Your task to perform on an android device: turn pop-ups on in chrome Image 0: 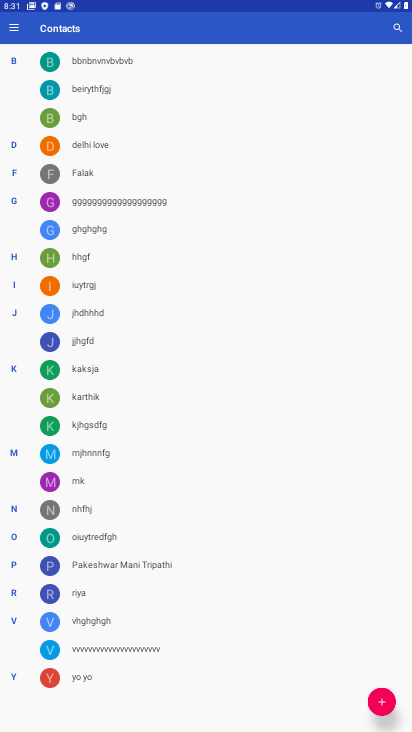
Step 0: press home button
Your task to perform on an android device: turn pop-ups on in chrome Image 1: 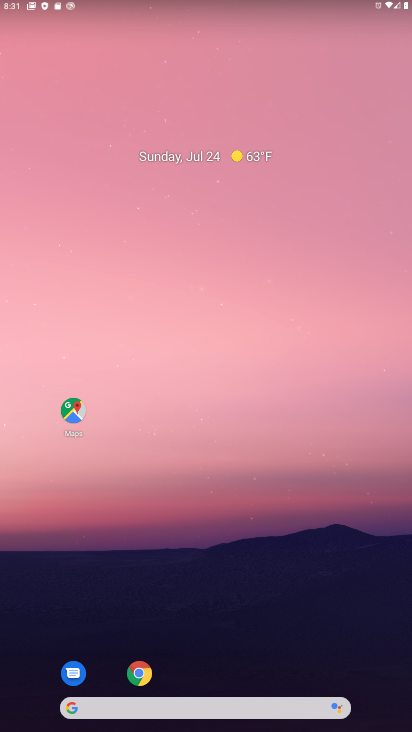
Step 1: drag from (230, 674) to (177, 101)
Your task to perform on an android device: turn pop-ups on in chrome Image 2: 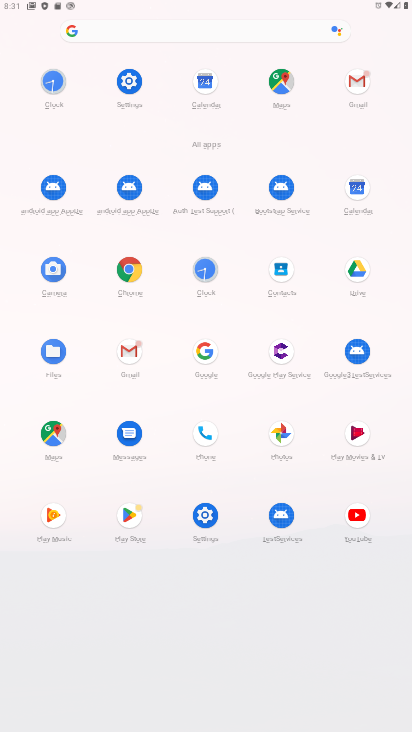
Step 2: click (203, 516)
Your task to perform on an android device: turn pop-ups on in chrome Image 3: 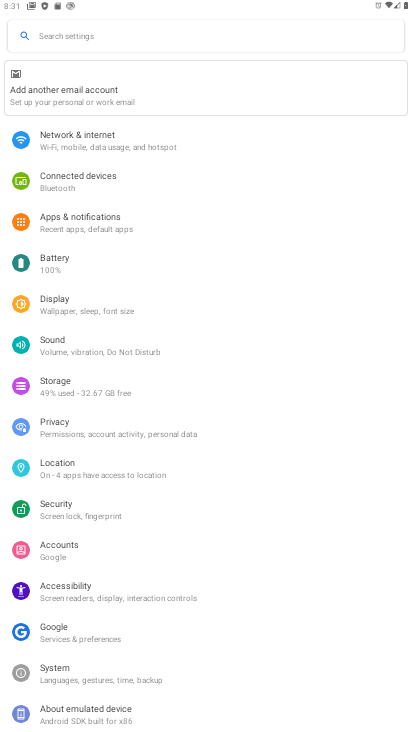
Step 3: press home button
Your task to perform on an android device: turn pop-ups on in chrome Image 4: 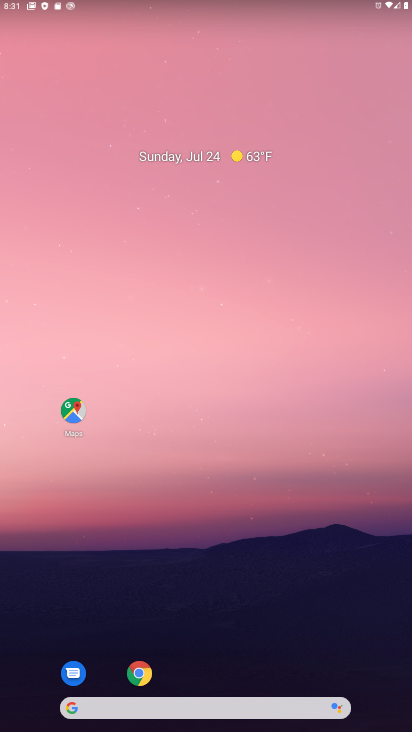
Step 4: drag from (205, 699) to (137, 29)
Your task to perform on an android device: turn pop-ups on in chrome Image 5: 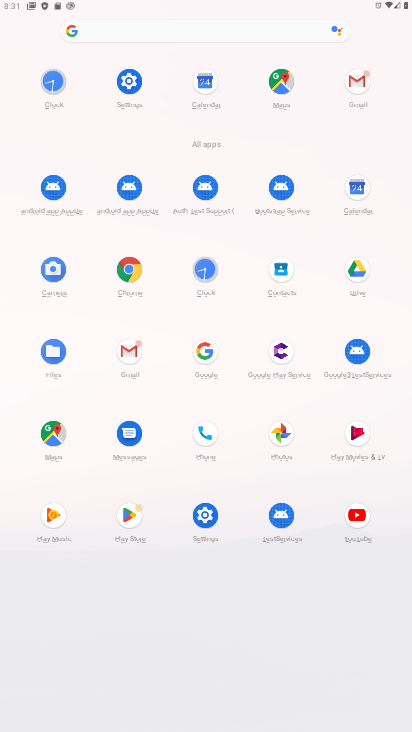
Step 5: click (120, 275)
Your task to perform on an android device: turn pop-ups on in chrome Image 6: 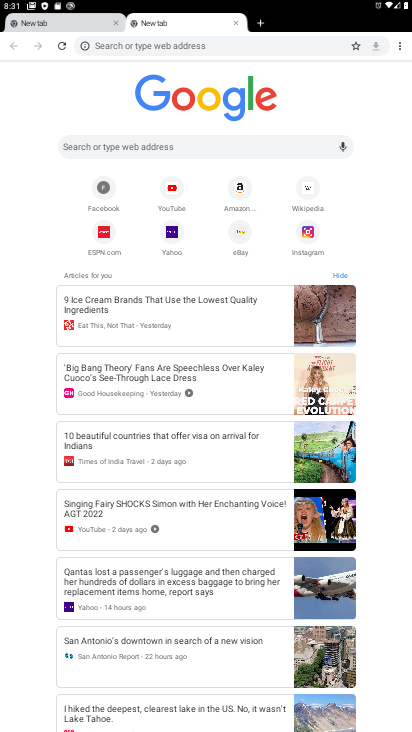
Step 6: click (399, 53)
Your task to perform on an android device: turn pop-ups on in chrome Image 7: 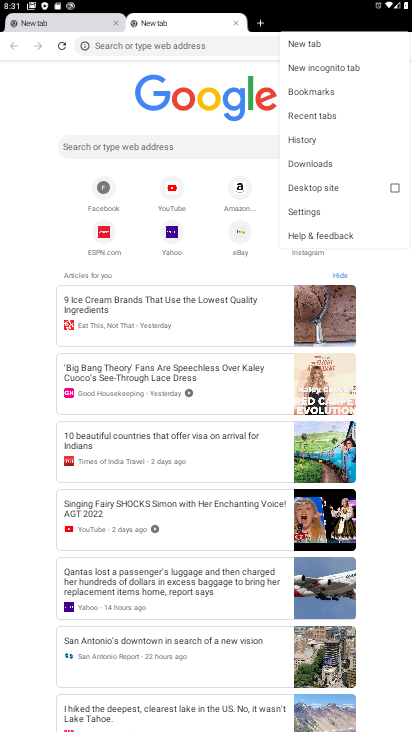
Step 7: click (302, 201)
Your task to perform on an android device: turn pop-ups on in chrome Image 8: 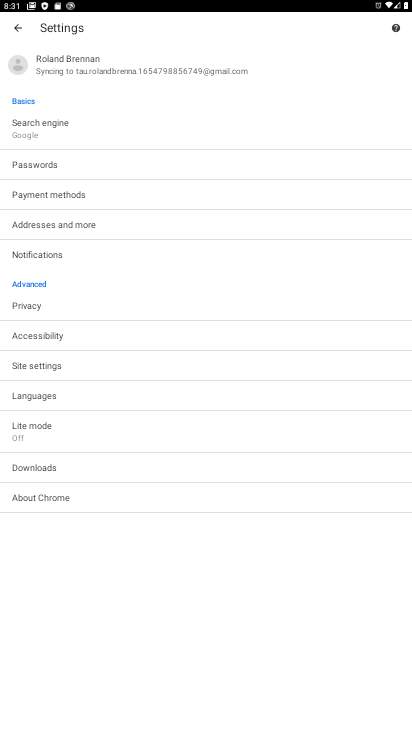
Step 8: click (44, 365)
Your task to perform on an android device: turn pop-ups on in chrome Image 9: 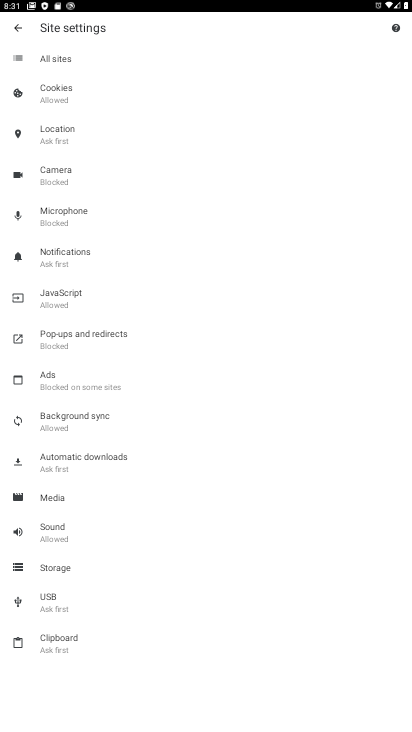
Step 9: click (58, 334)
Your task to perform on an android device: turn pop-ups on in chrome Image 10: 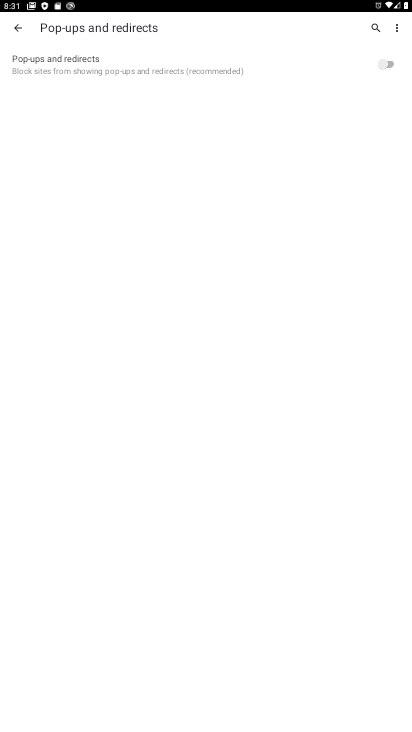
Step 10: click (378, 65)
Your task to perform on an android device: turn pop-ups on in chrome Image 11: 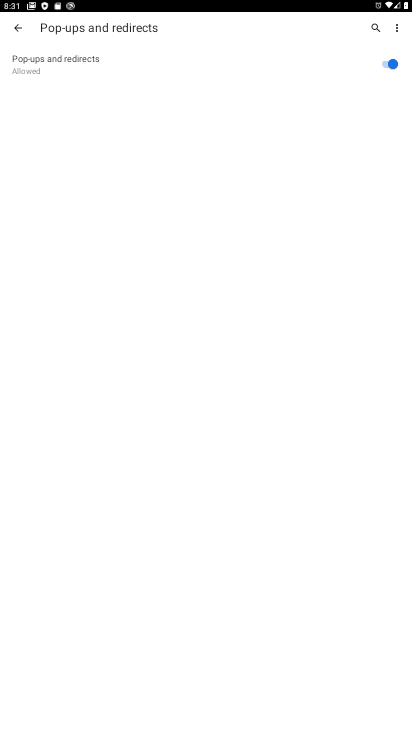
Step 11: task complete